Your task to perform on an android device: turn off airplane mode Image 0: 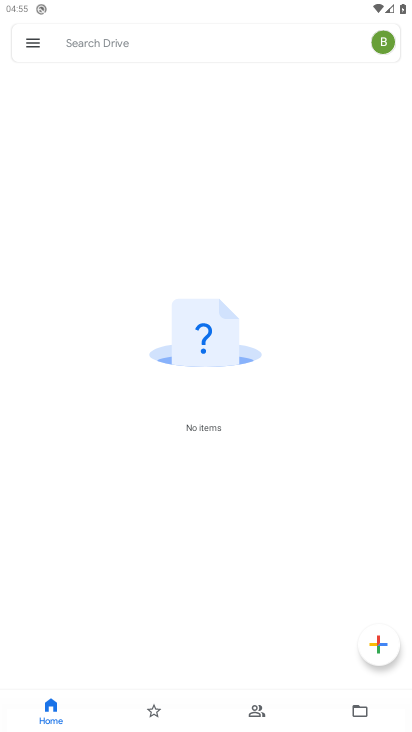
Step 0: press home button
Your task to perform on an android device: turn off airplane mode Image 1: 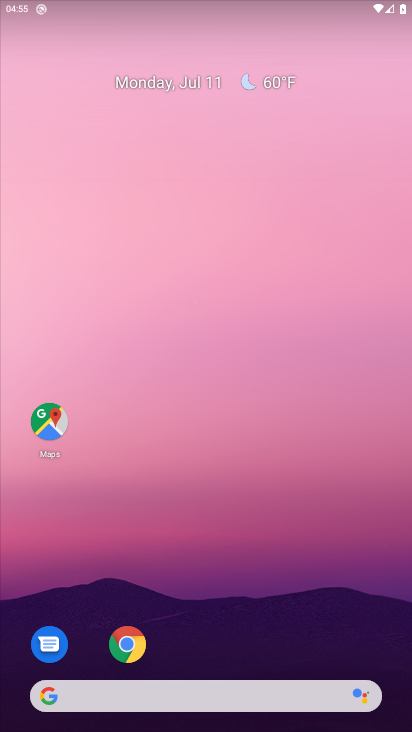
Step 1: drag from (173, 671) to (185, 226)
Your task to perform on an android device: turn off airplane mode Image 2: 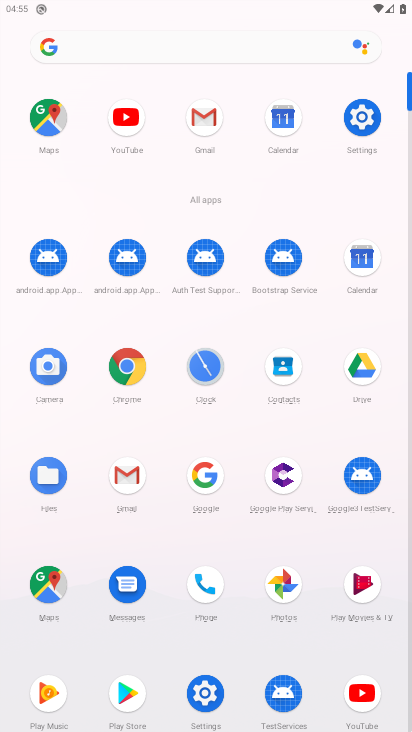
Step 2: click (356, 118)
Your task to perform on an android device: turn off airplane mode Image 3: 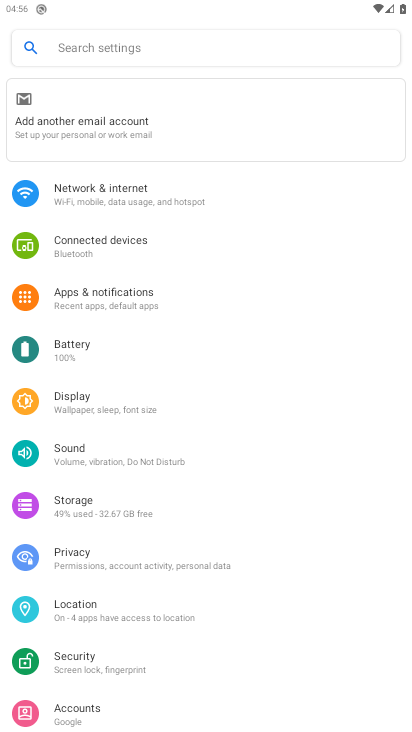
Step 3: click (73, 188)
Your task to perform on an android device: turn off airplane mode Image 4: 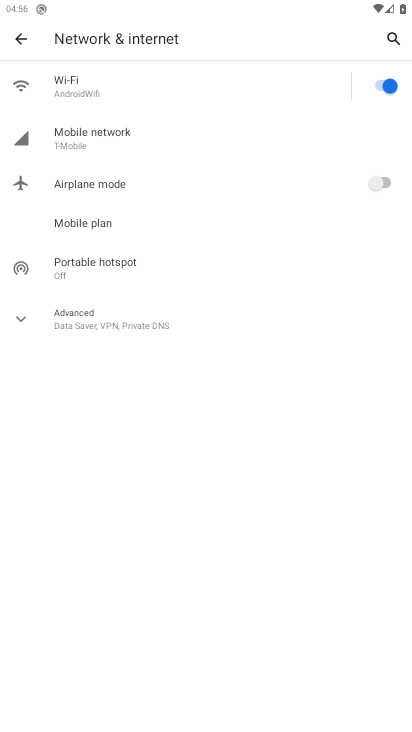
Step 4: task complete